Your task to perform on an android device: search for starred emails in the gmail app Image 0: 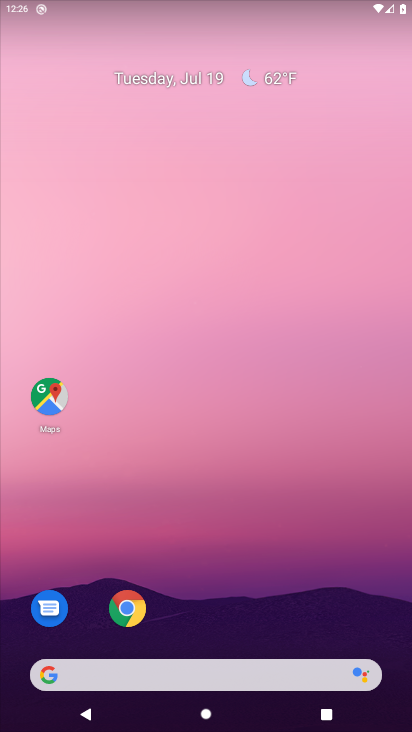
Step 0: drag from (222, 640) to (266, 68)
Your task to perform on an android device: search for starred emails in the gmail app Image 1: 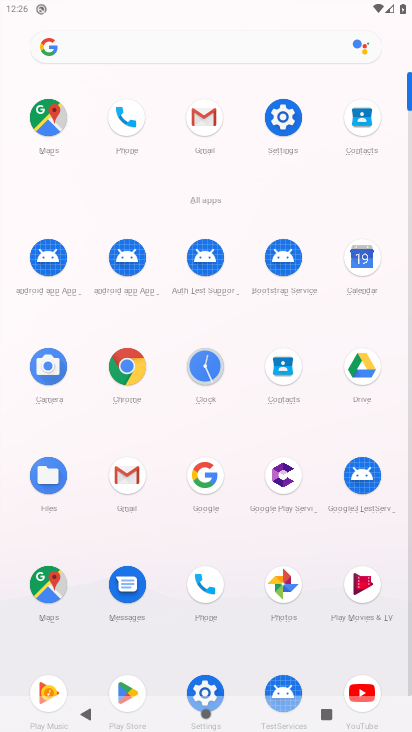
Step 1: click (198, 109)
Your task to perform on an android device: search for starred emails in the gmail app Image 2: 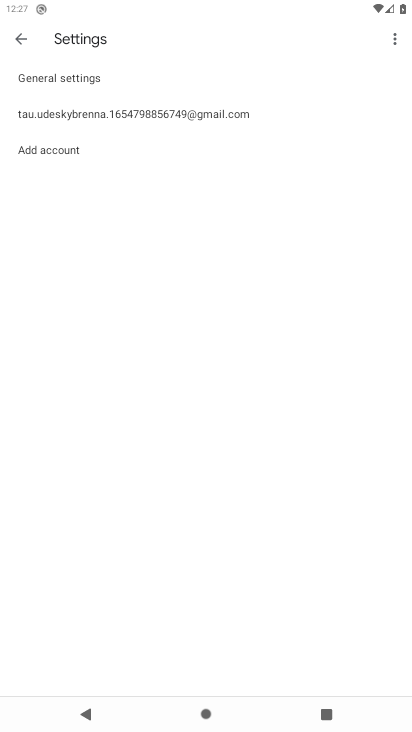
Step 2: click (14, 35)
Your task to perform on an android device: search for starred emails in the gmail app Image 3: 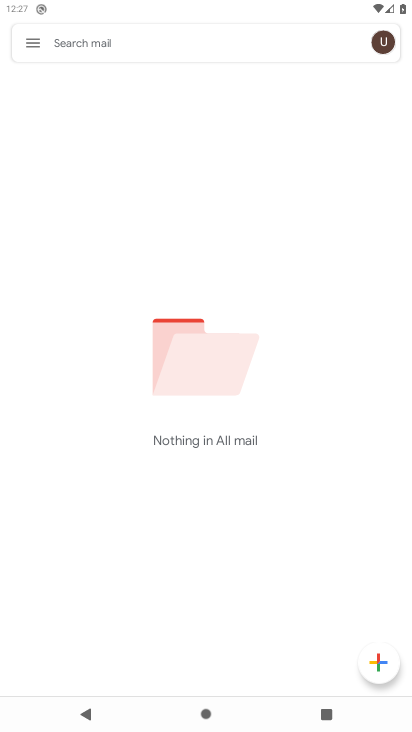
Step 3: click (31, 43)
Your task to perform on an android device: search for starred emails in the gmail app Image 4: 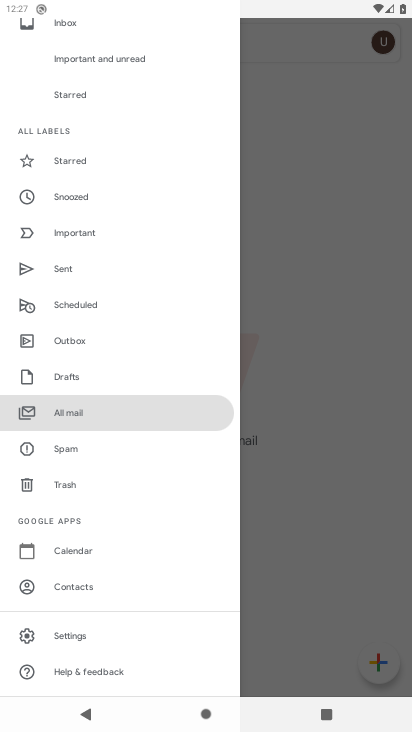
Step 4: click (92, 155)
Your task to perform on an android device: search for starred emails in the gmail app Image 5: 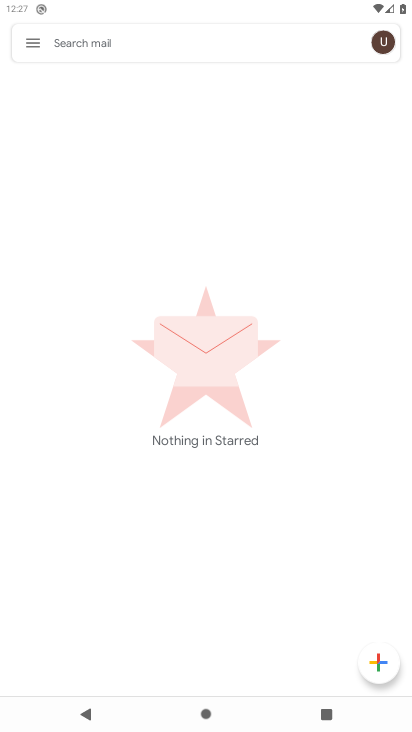
Step 5: task complete